Your task to perform on an android device: turn pop-ups on in chrome Image 0: 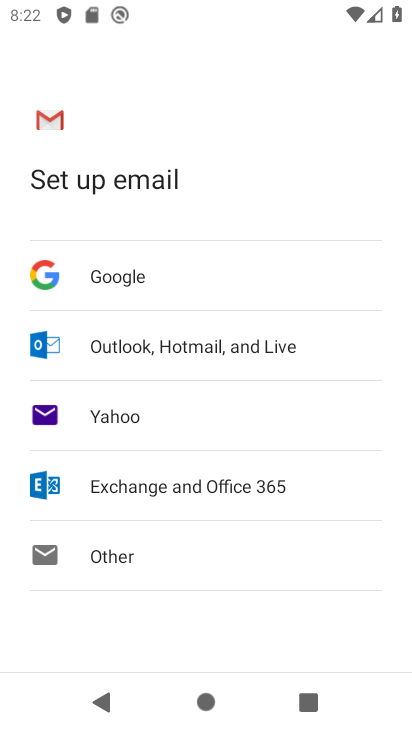
Step 0: press home button
Your task to perform on an android device: turn pop-ups on in chrome Image 1: 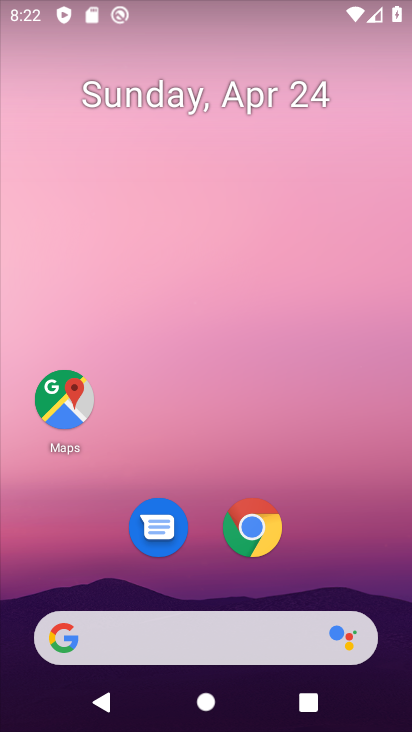
Step 1: click (252, 527)
Your task to perform on an android device: turn pop-ups on in chrome Image 2: 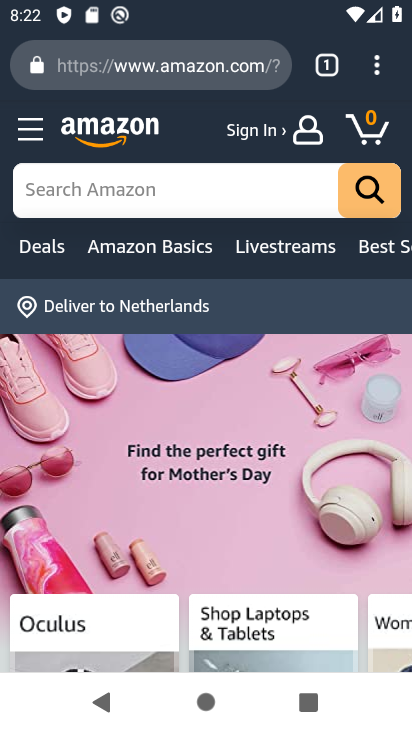
Step 2: click (375, 67)
Your task to perform on an android device: turn pop-ups on in chrome Image 3: 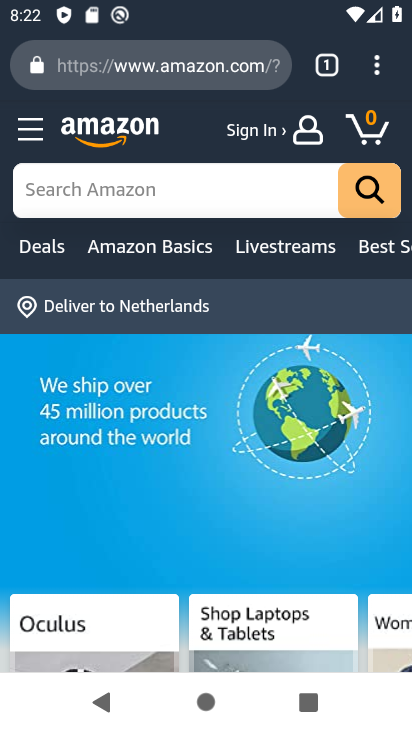
Step 3: drag from (380, 75) to (162, 575)
Your task to perform on an android device: turn pop-ups on in chrome Image 4: 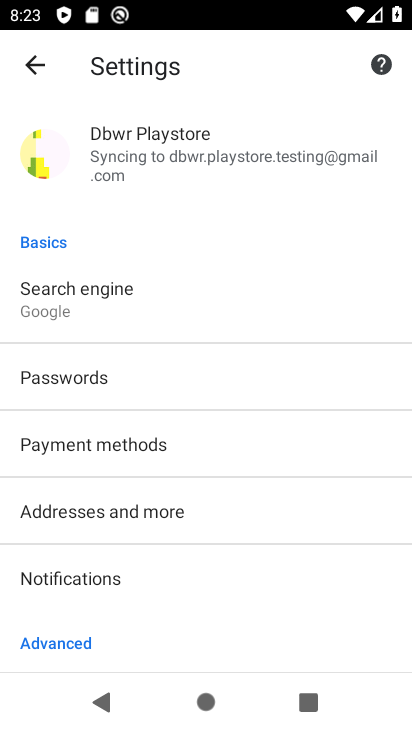
Step 4: drag from (246, 537) to (234, 94)
Your task to perform on an android device: turn pop-ups on in chrome Image 5: 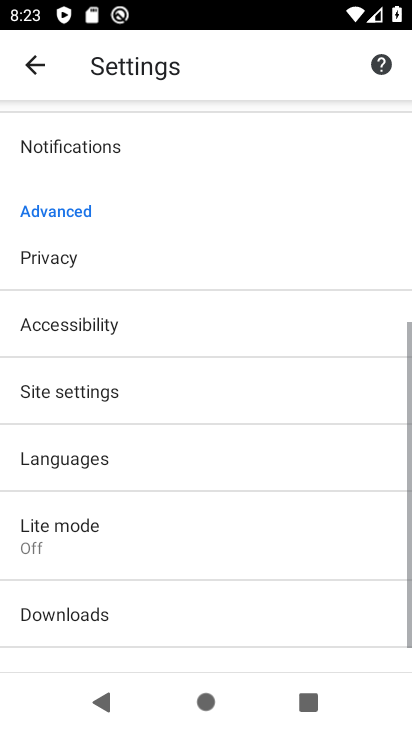
Step 5: drag from (228, 593) to (223, 359)
Your task to perform on an android device: turn pop-ups on in chrome Image 6: 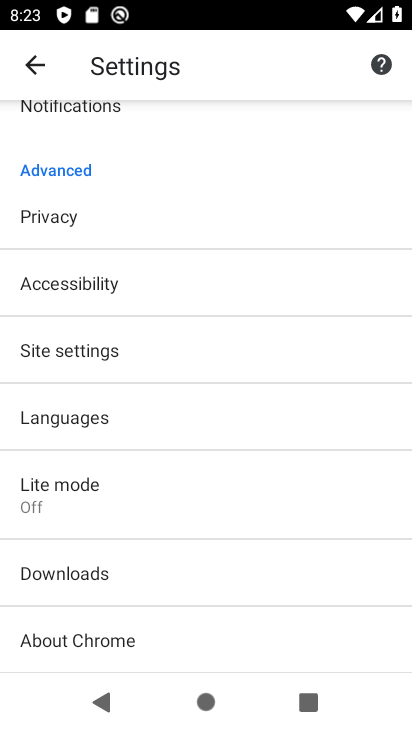
Step 6: click (121, 352)
Your task to perform on an android device: turn pop-ups on in chrome Image 7: 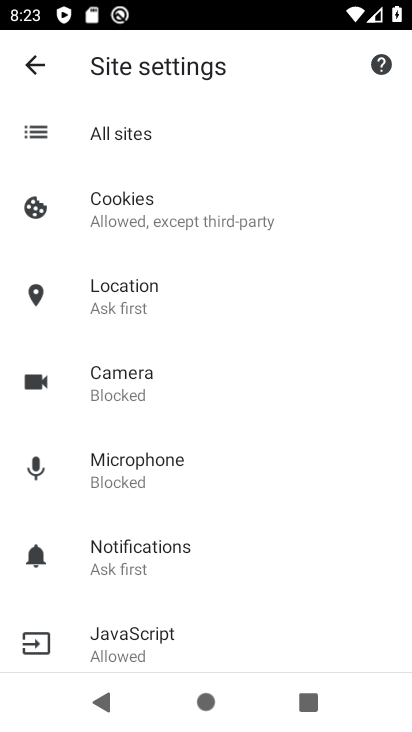
Step 7: drag from (314, 607) to (275, 126)
Your task to perform on an android device: turn pop-ups on in chrome Image 8: 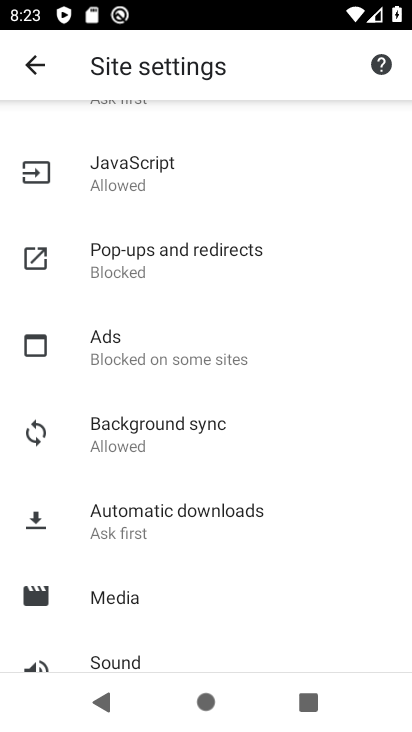
Step 8: click (144, 271)
Your task to perform on an android device: turn pop-ups on in chrome Image 9: 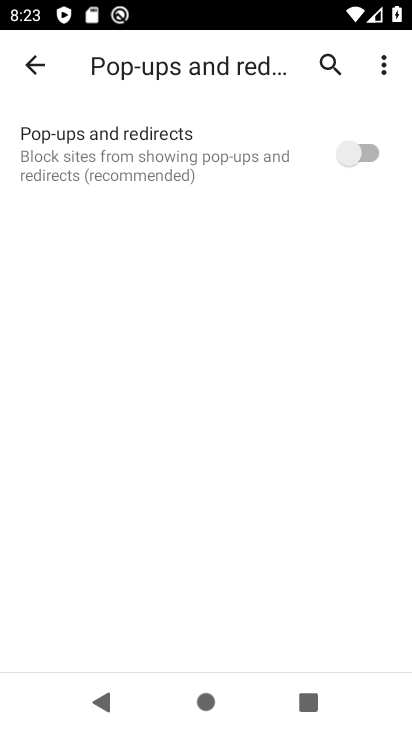
Step 9: click (367, 151)
Your task to perform on an android device: turn pop-ups on in chrome Image 10: 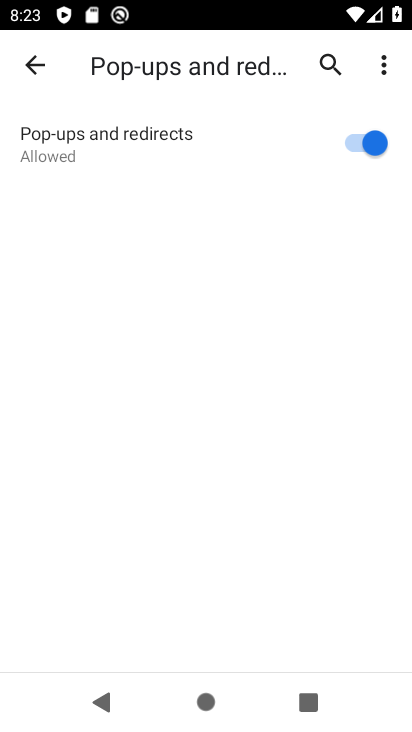
Step 10: task complete